Your task to perform on an android device: Open display settings Image 0: 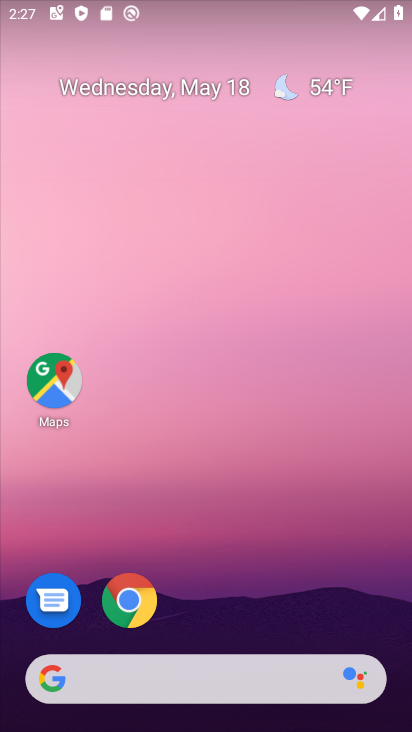
Step 0: drag from (180, 644) to (299, 78)
Your task to perform on an android device: Open display settings Image 1: 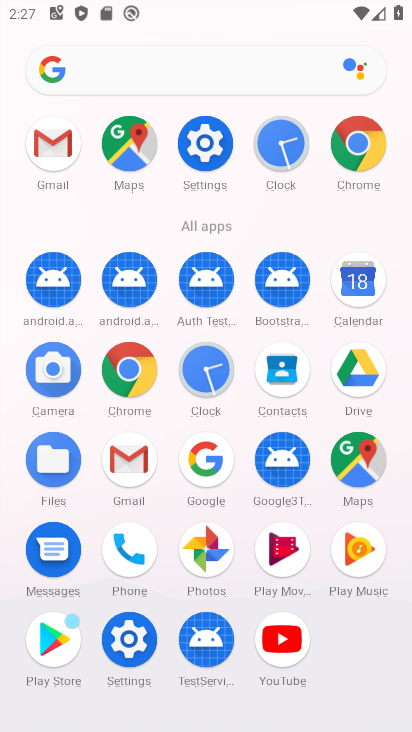
Step 1: click (210, 131)
Your task to perform on an android device: Open display settings Image 2: 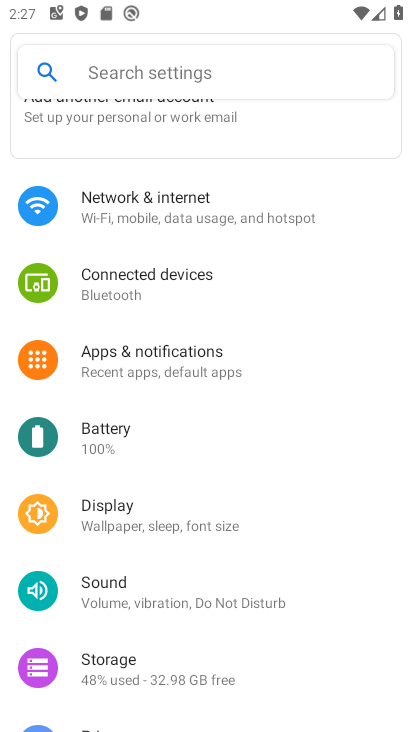
Step 2: click (110, 510)
Your task to perform on an android device: Open display settings Image 3: 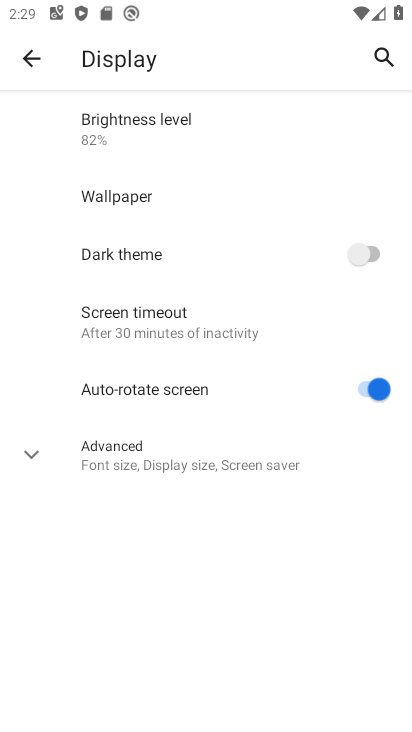
Step 3: press home button
Your task to perform on an android device: Open display settings Image 4: 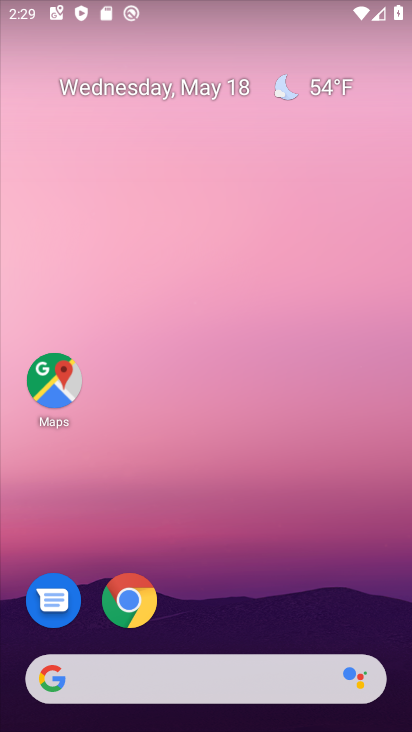
Step 4: drag from (232, 633) to (268, 21)
Your task to perform on an android device: Open display settings Image 5: 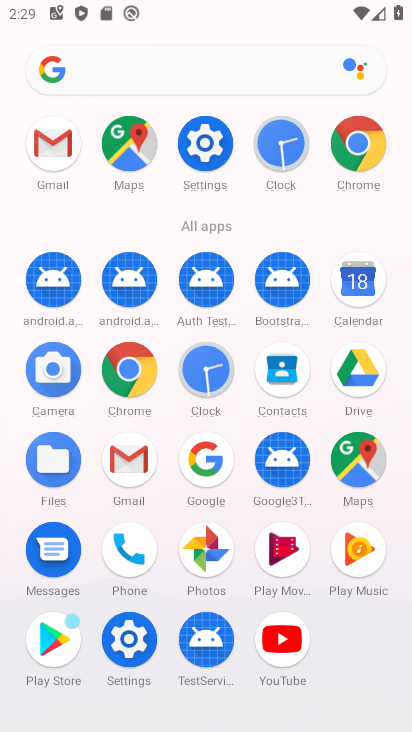
Step 5: click (194, 143)
Your task to perform on an android device: Open display settings Image 6: 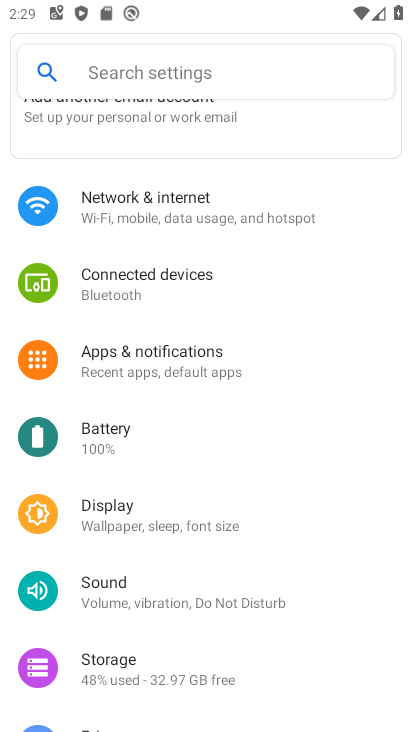
Step 6: click (175, 509)
Your task to perform on an android device: Open display settings Image 7: 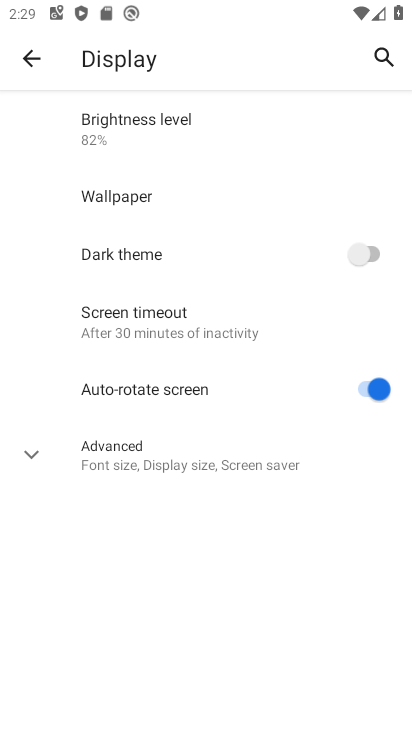
Step 7: task complete